Your task to perform on an android device: Open Reddit.com Image 0: 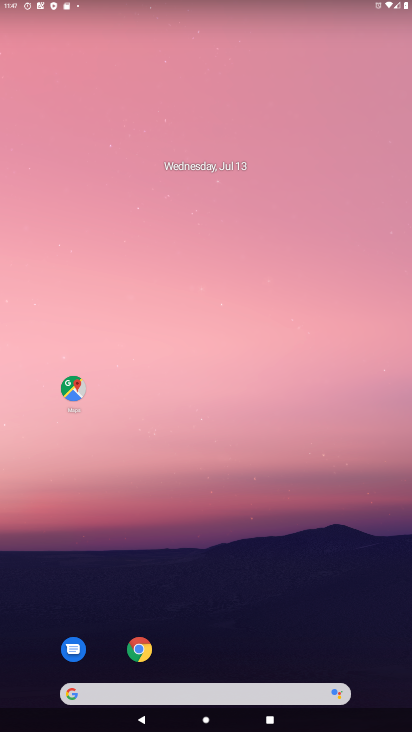
Step 0: click (318, 413)
Your task to perform on an android device: Open Reddit.com Image 1: 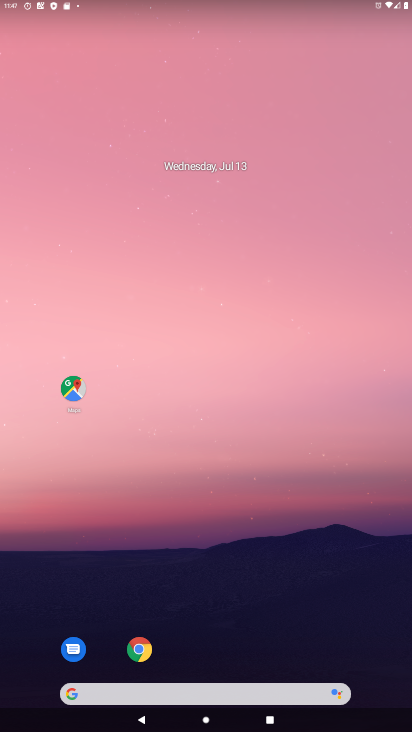
Step 1: click (141, 652)
Your task to perform on an android device: Open Reddit.com Image 2: 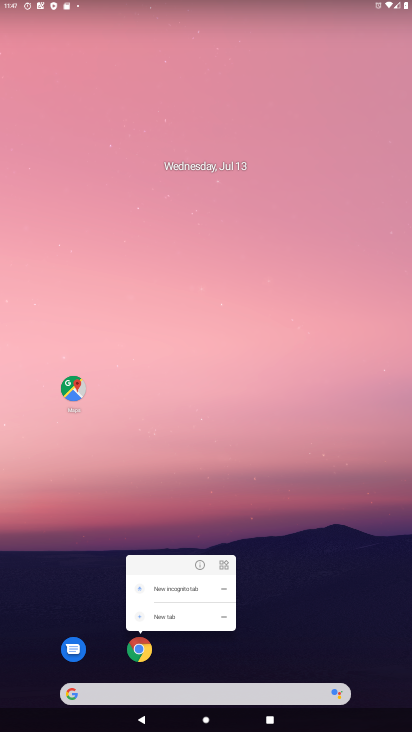
Step 2: click (141, 652)
Your task to perform on an android device: Open Reddit.com Image 3: 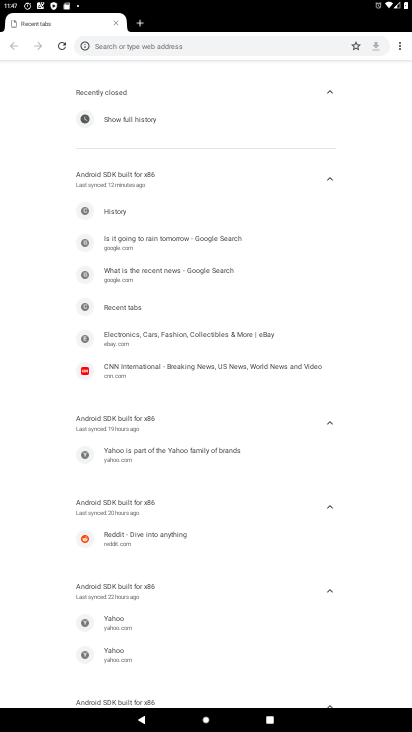
Step 3: click (278, 42)
Your task to perform on an android device: Open Reddit.com Image 4: 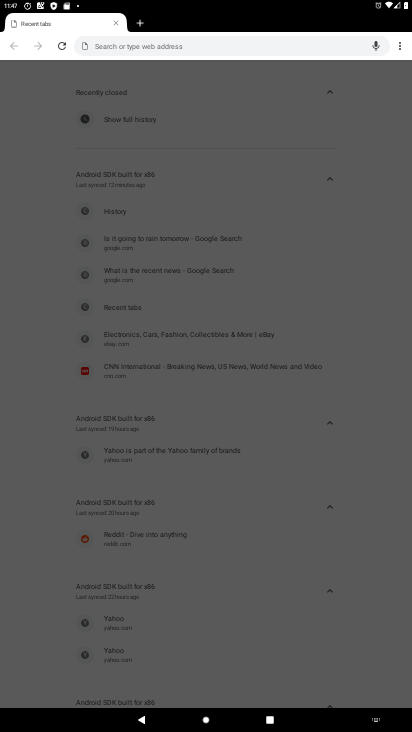
Step 4: type "Reddit.com"
Your task to perform on an android device: Open Reddit.com Image 5: 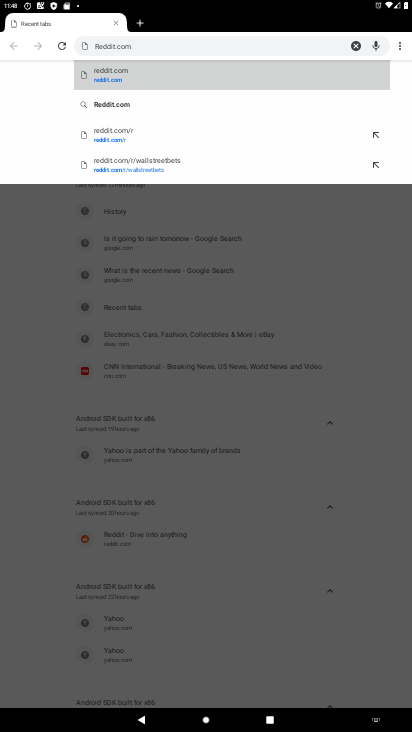
Step 5: click (123, 108)
Your task to perform on an android device: Open Reddit.com Image 6: 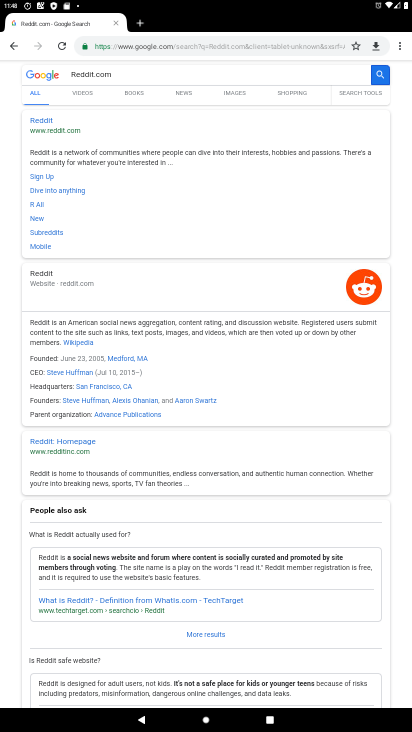
Step 6: drag from (121, 193) to (126, 231)
Your task to perform on an android device: Open Reddit.com Image 7: 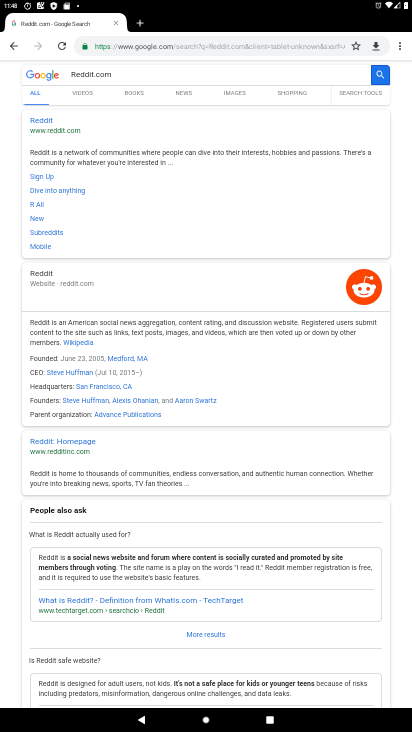
Step 7: click (80, 281)
Your task to perform on an android device: Open Reddit.com Image 8: 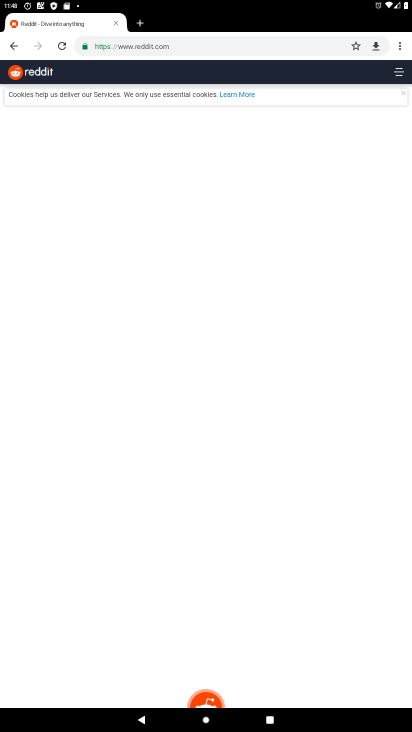
Step 8: task complete